Your task to perform on an android device: find snoozed emails in the gmail app Image 0: 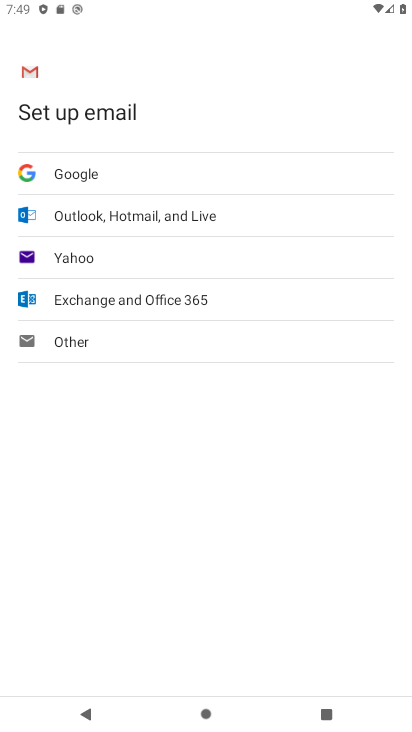
Step 0: press home button
Your task to perform on an android device: find snoozed emails in the gmail app Image 1: 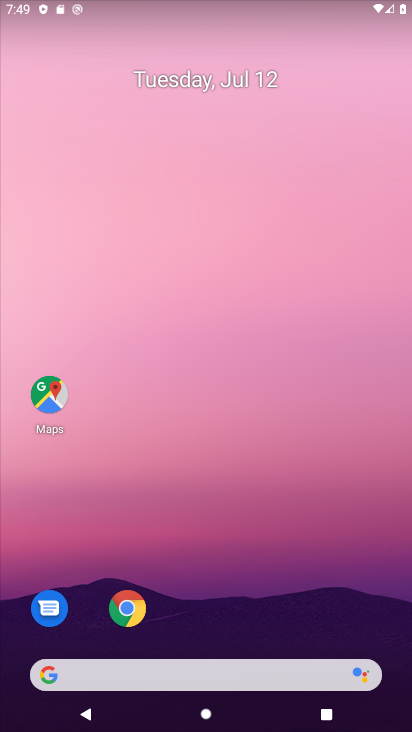
Step 1: drag from (195, 679) to (343, 285)
Your task to perform on an android device: find snoozed emails in the gmail app Image 2: 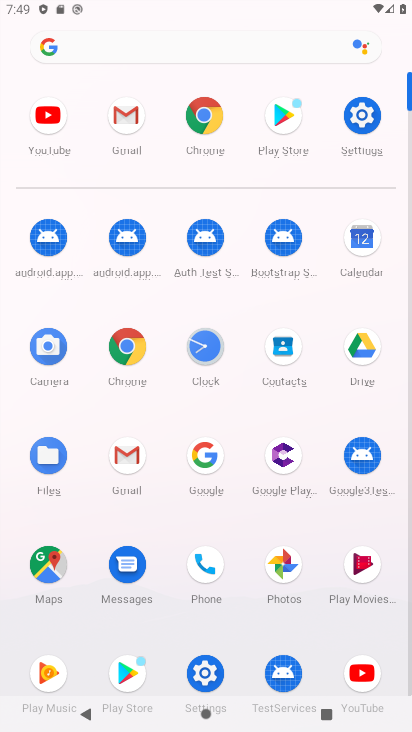
Step 2: click (126, 112)
Your task to perform on an android device: find snoozed emails in the gmail app Image 3: 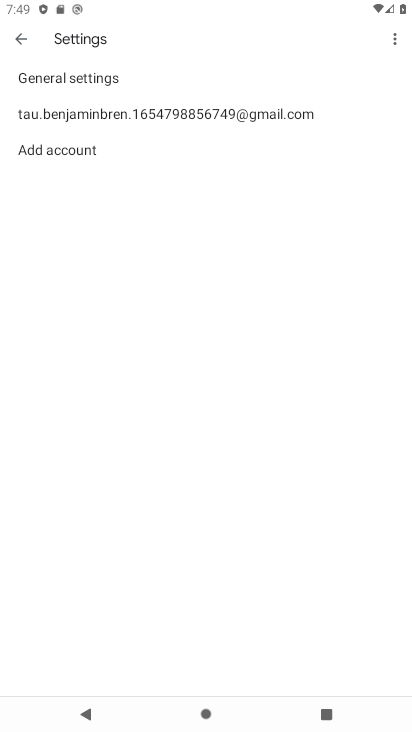
Step 3: click (21, 37)
Your task to perform on an android device: find snoozed emails in the gmail app Image 4: 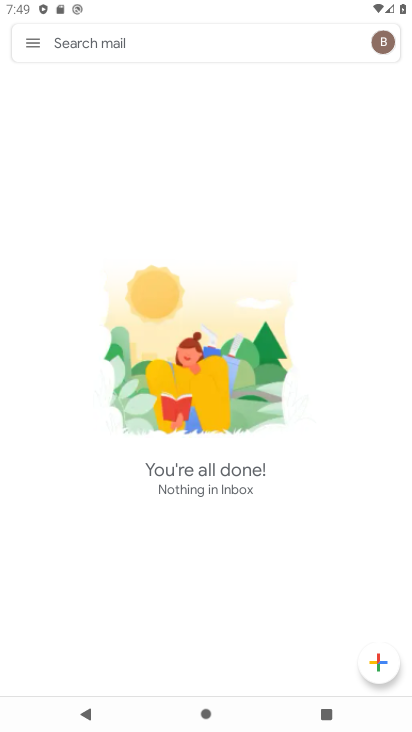
Step 4: click (21, 40)
Your task to perform on an android device: find snoozed emails in the gmail app Image 5: 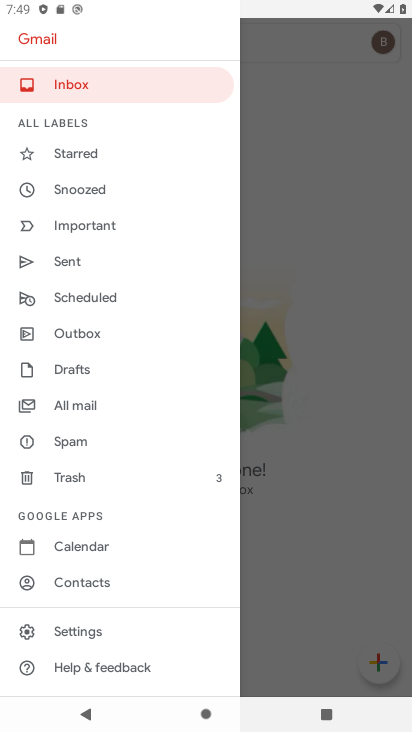
Step 5: click (76, 189)
Your task to perform on an android device: find snoozed emails in the gmail app Image 6: 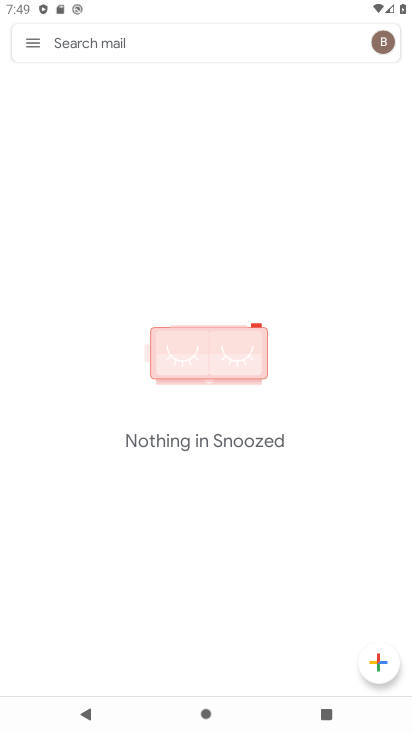
Step 6: task complete